Your task to perform on an android device: Open the stopwatch Image 0: 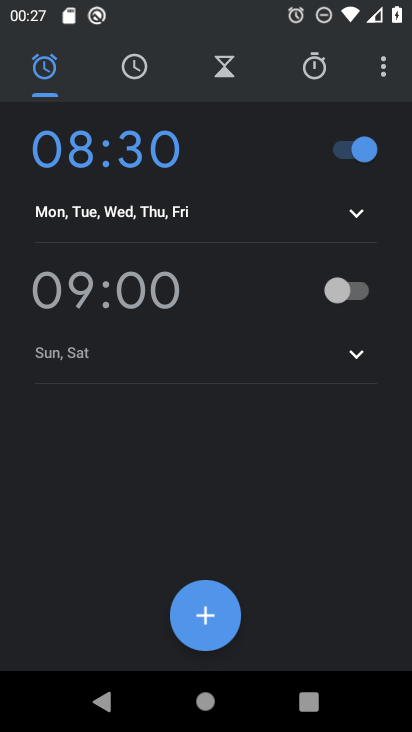
Step 0: click (318, 63)
Your task to perform on an android device: Open the stopwatch Image 1: 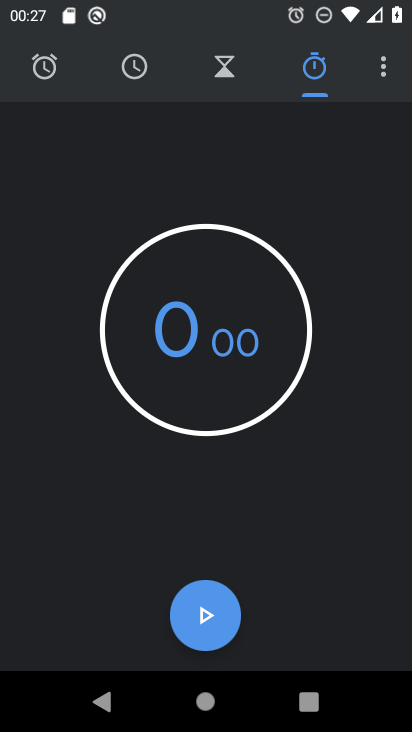
Step 1: task complete